Your task to perform on an android device: check battery use Image 0: 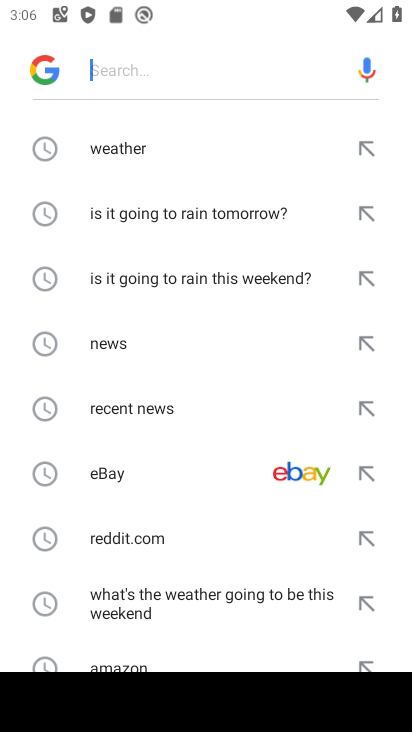
Step 0: press home button
Your task to perform on an android device: check battery use Image 1: 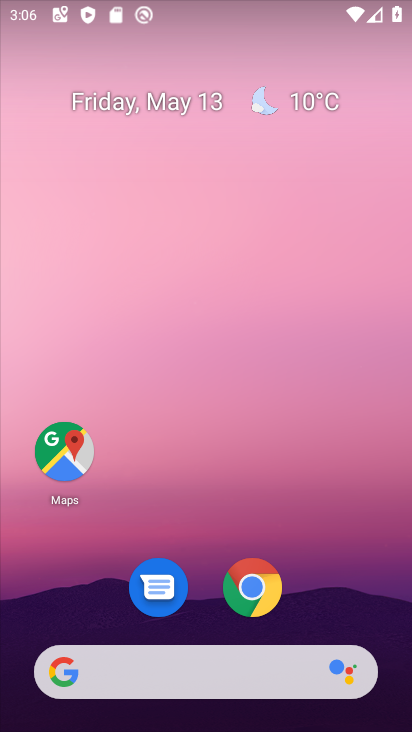
Step 1: drag from (196, 606) to (181, 20)
Your task to perform on an android device: check battery use Image 2: 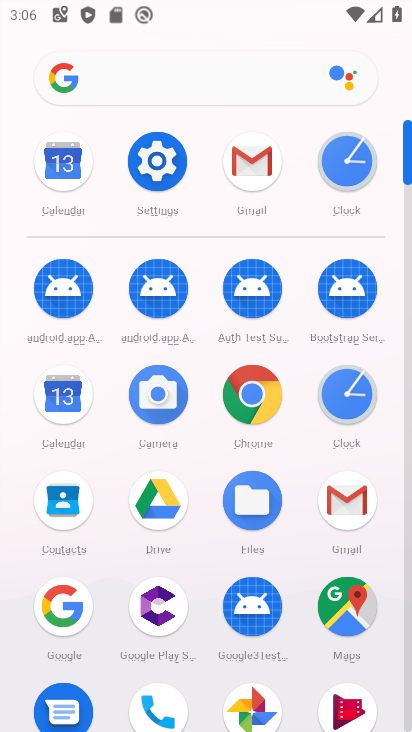
Step 2: click (149, 170)
Your task to perform on an android device: check battery use Image 3: 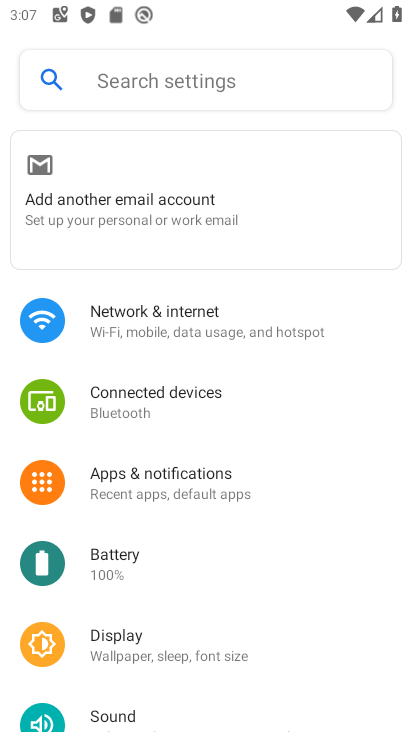
Step 3: click (198, 549)
Your task to perform on an android device: check battery use Image 4: 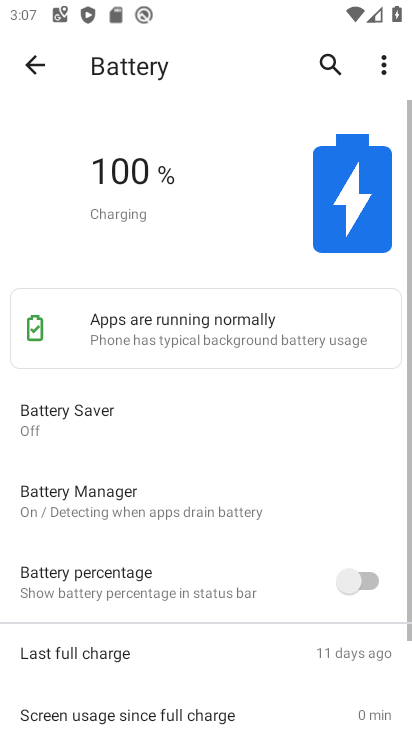
Step 4: click (379, 56)
Your task to perform on an android device: check battery use Image 5: 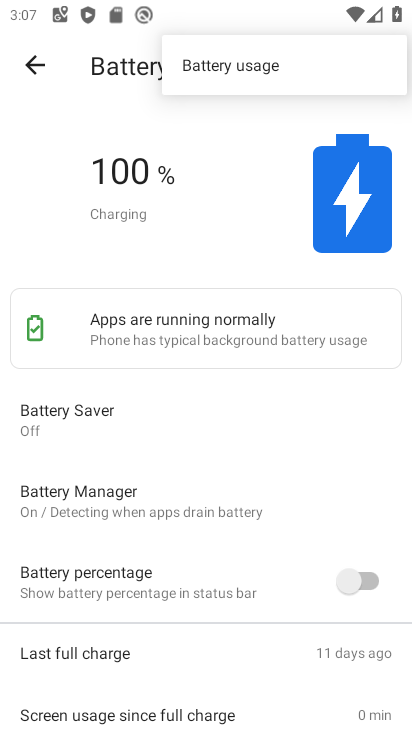
Step 5: click (299, 74)
Your task to perform on an android device: check battery use Image 6: 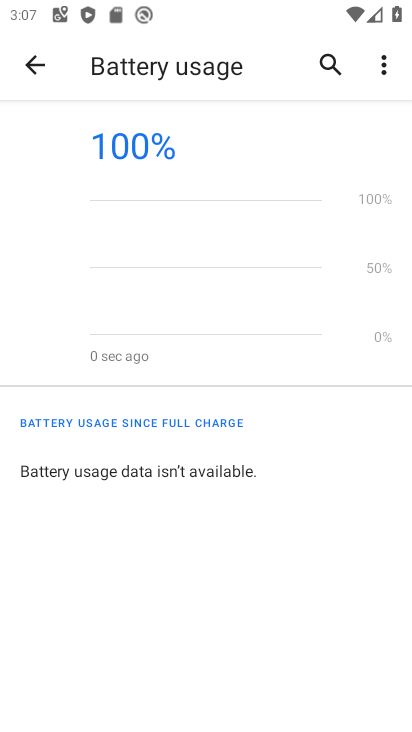
Step 6: click (377, 47)
Your task to perform on an android device: check battery use Image 7: 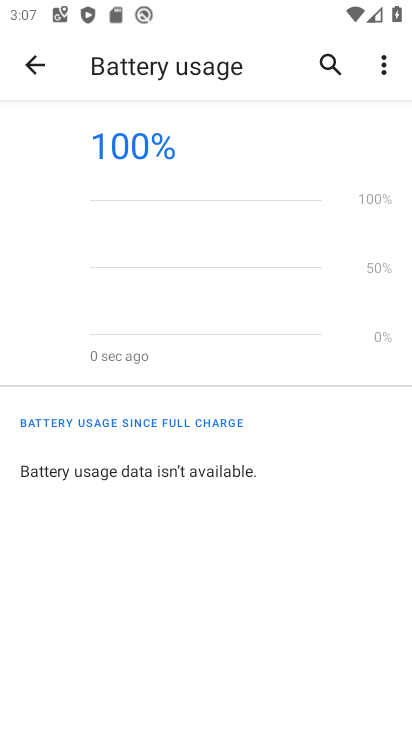
Step 7: task complete